Your task to perform on an android device: change text size in settings app Image 0: 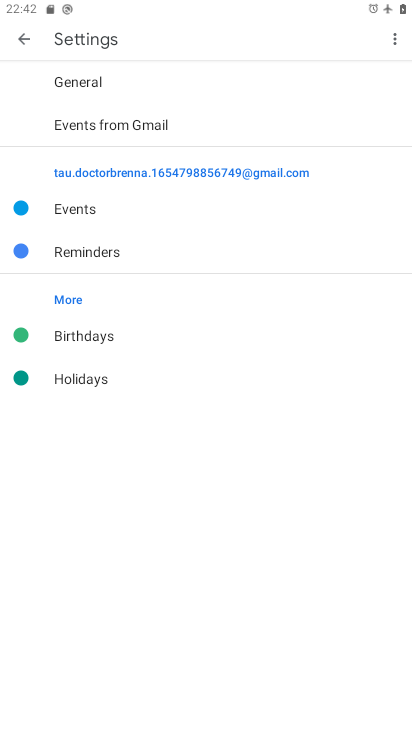
Step 0: press home button
Your task to perform on an android device: change text size in settings app Image 1: 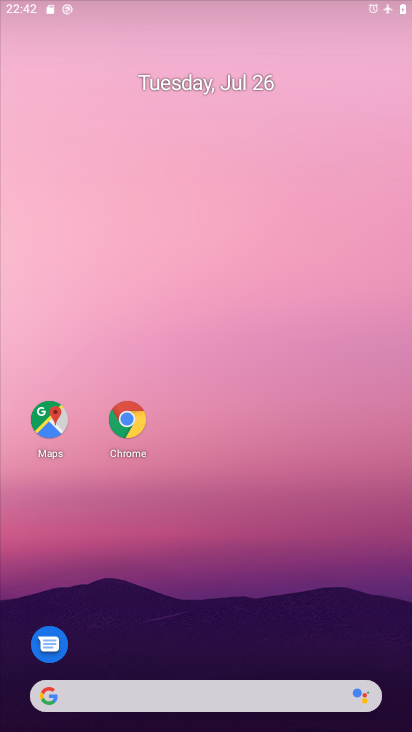
Step 1: drag from (242, 577) to (242, 242)
Your task to perform on an android device: change text size in settings app Image 2: 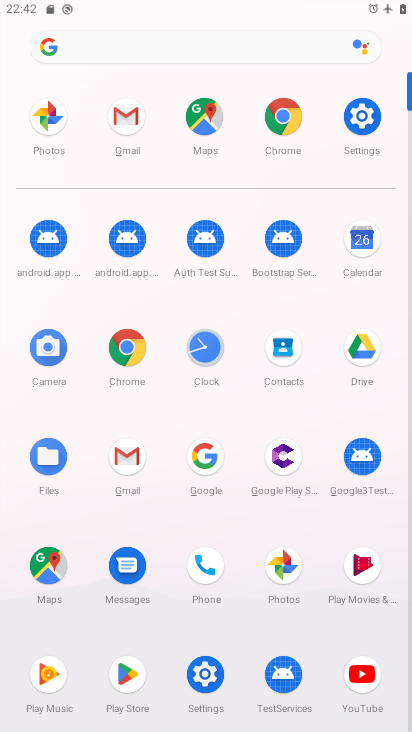
Step 2: click (356, 118)
Your task to perform on an android device: change text size in settings app Image 3: 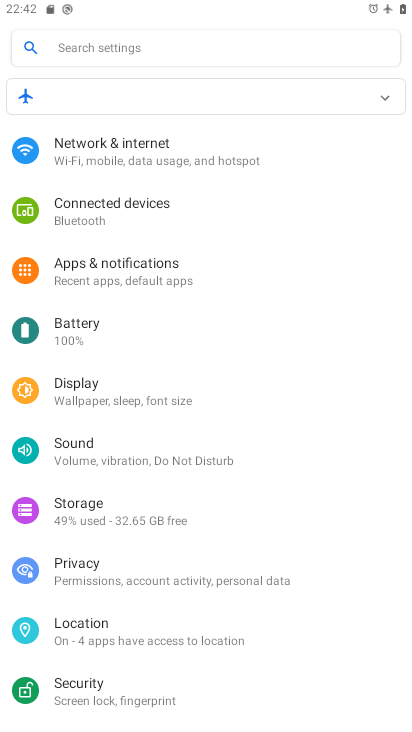
Step 3: drag from (139, 656) to (175, 371)
Your task to perform on an android device: change text size in settings app Image 4: 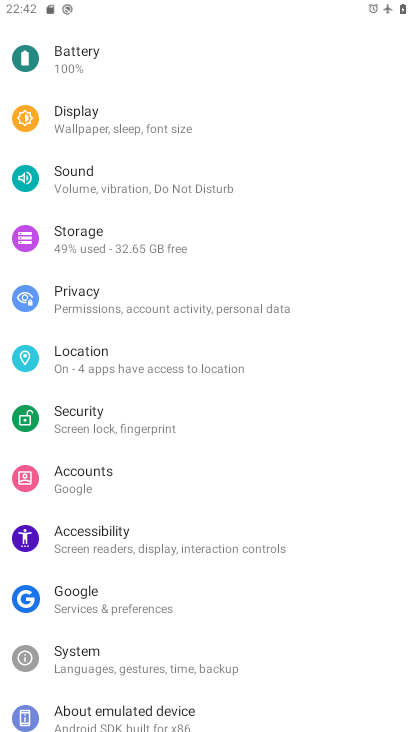
Step 4: click (139, 538)
Your task to perform on an android device: change text size in settings app Image 5: 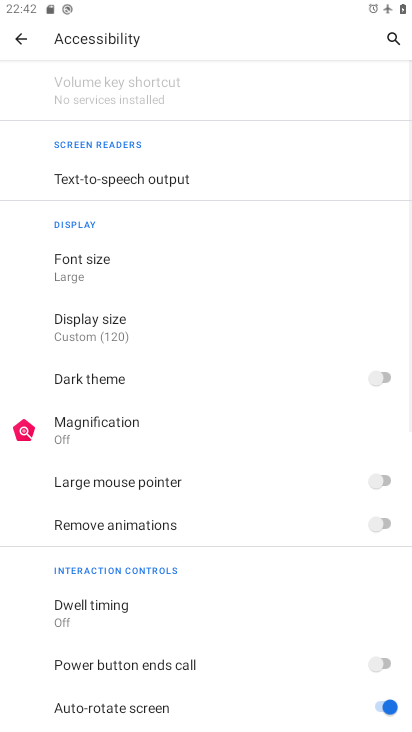
Step 5: click (107, 263)
Your task to perform on an android device: change text size in settings app Image 6: 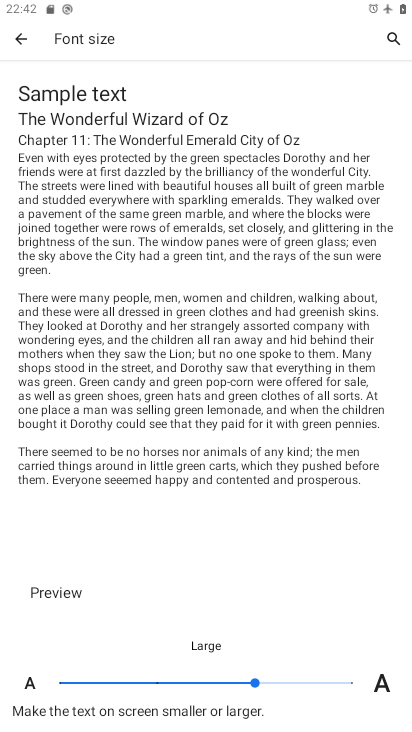
Step 6: click (334, 682)
Your task to perform on an android device: change text size in settings app Image 7: 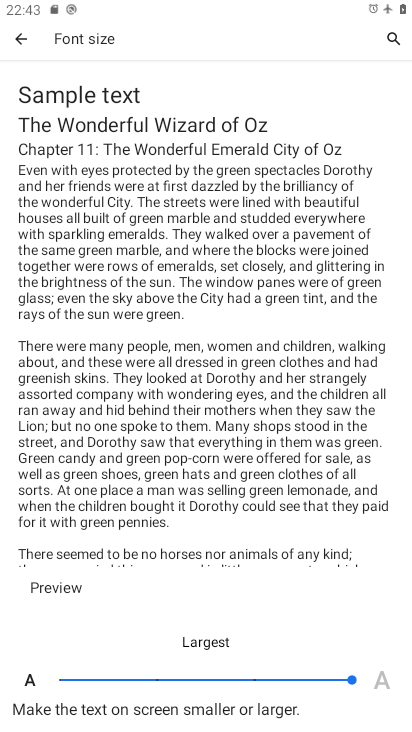
Step 7: task complete